Your task to perform on an android device: toggle notification dots Image 0: 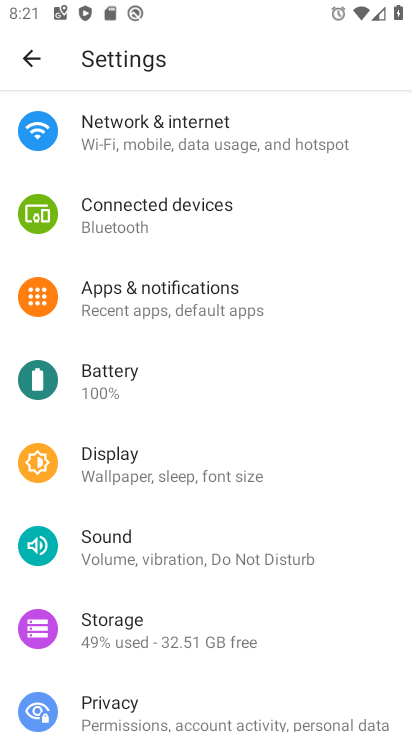
Step 0: drag from (259, 569) to (253, 428)
Your task to perform on an android device: toggle notification dots Image 1: 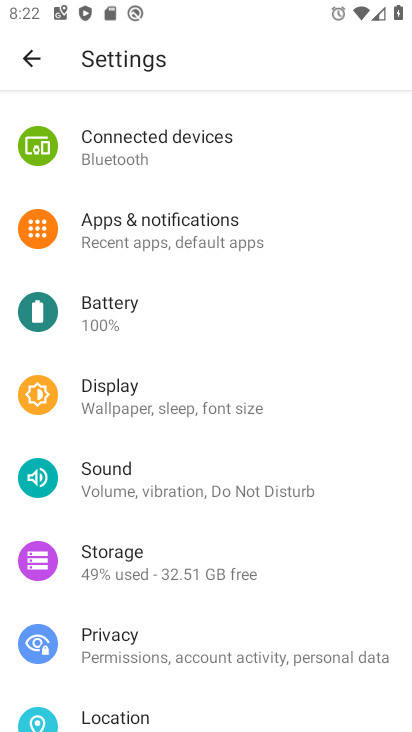
Step 1: click (224, 224)
Your task to perform on an android device: toggle notification dots Image 2: 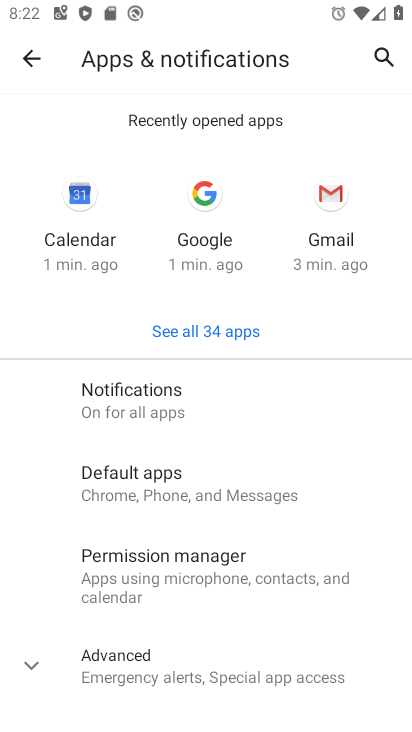
Step 2: drag from (235, 666) to (242, 487)
Your task to perform on an android device: toggle notification dots Image 3: 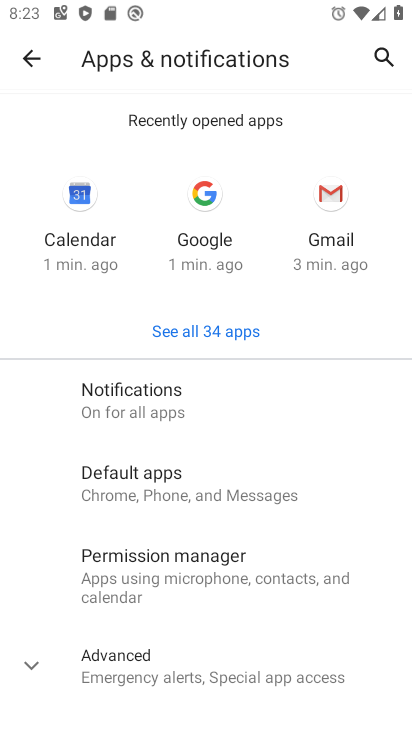
Step 3: drag from (222, 467) to (241, 149)
Your task to perform on an android device: toggle notification dots Image 4: 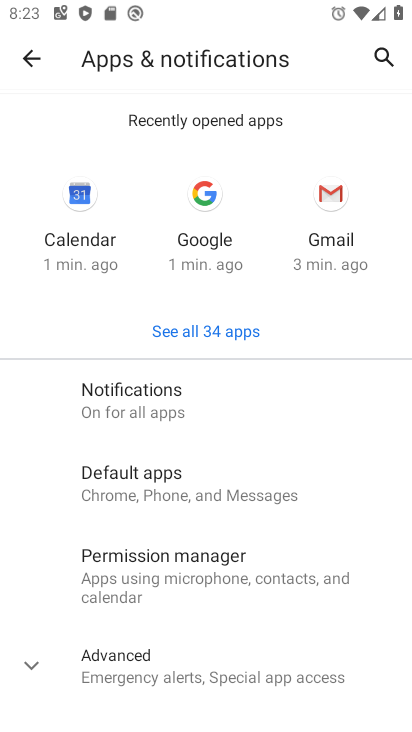
Step 4: drag from (216, 505) to (206, 123)
Your task to perform on an android device: toggle notification dots Image 5: 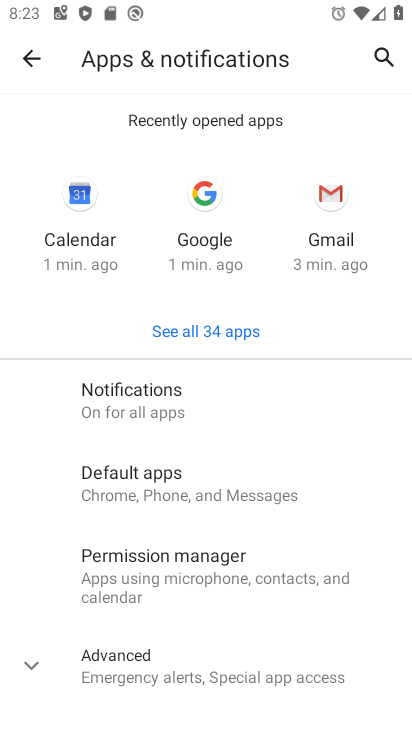
Step 5: click (205, 401)
Your task to perform on an android device: toggle notification dots Image 6: 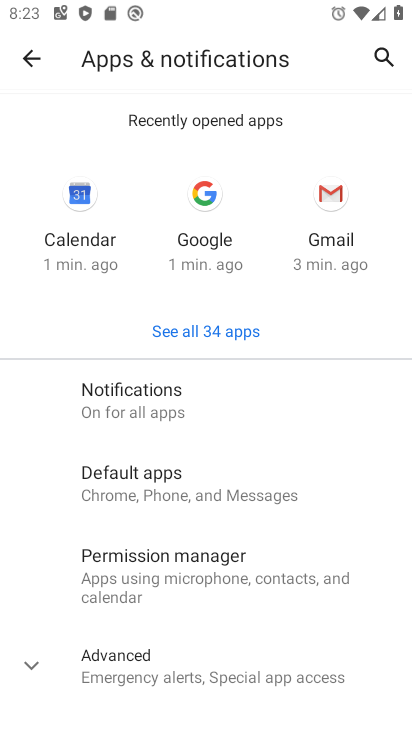
Step 6: click (205, 401)
Your task to perform on an android device: toggle notification dots Image 7: 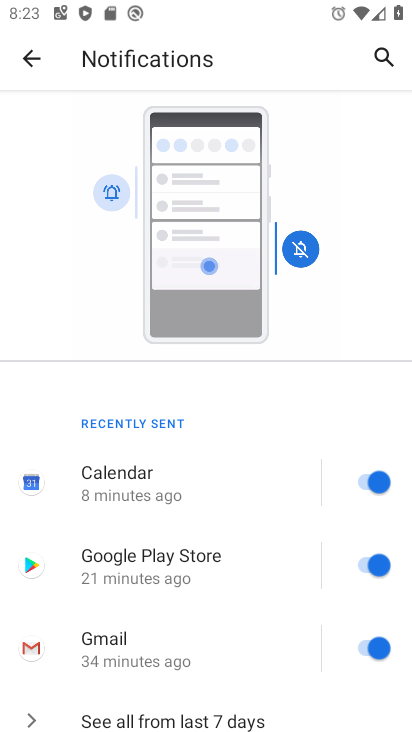
Step 7: drag from (281, 637) to (323, 299)
Your task to perform on an android device: toggle notification dots Image 8: 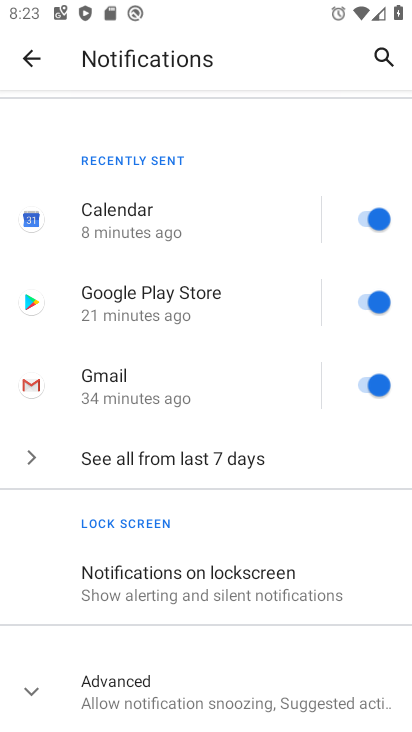
Step 8: drag from (290, 681) to (303, 347)
Your task to perform on an android device: toggle notification dots Image 9: 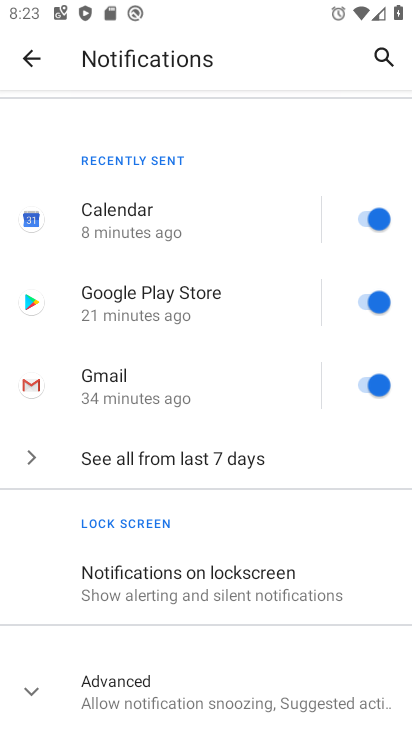
Step 9: click (179, 676)
Your task to perform on an android device: toggle notification dots Image 10: 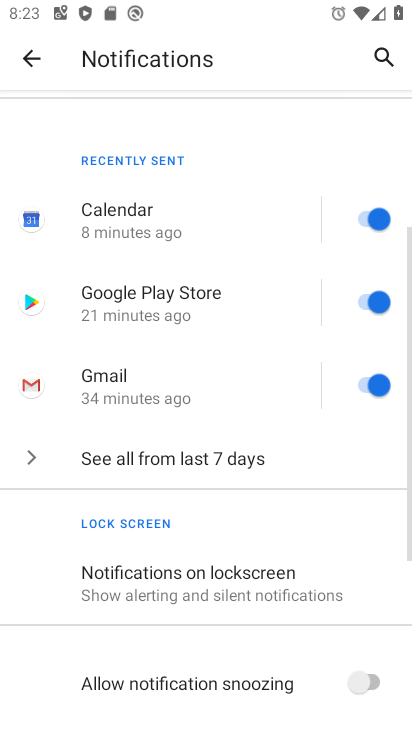
Step 10: drag from (281, 653) to (245, 60)
Your task to perform on an android device: toggle notification dots Image 11: 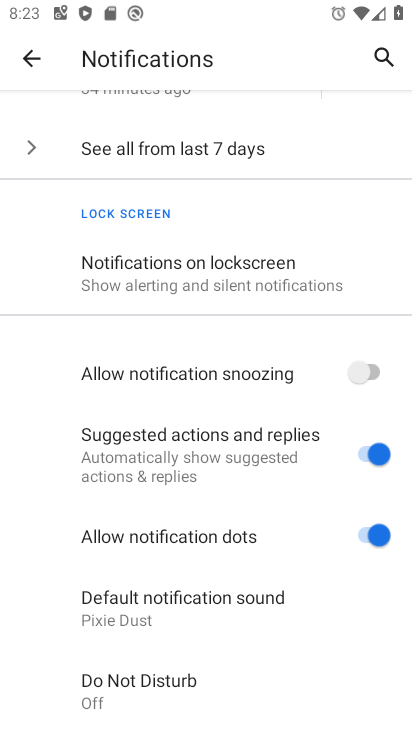
Step 11: click (366, 536)
Your task to perform on an android device: toggle notification dots Image 12: 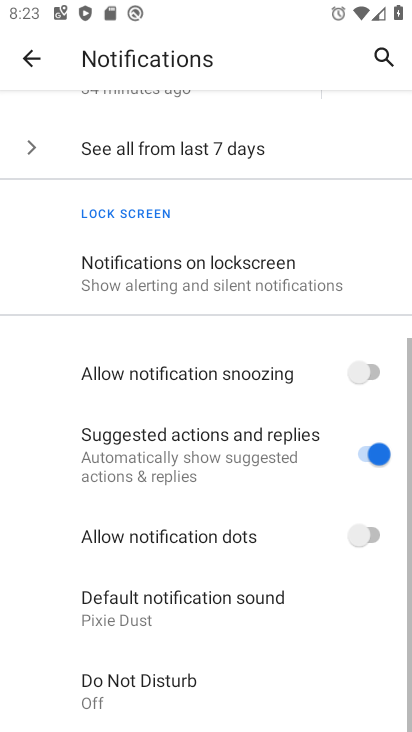
Step 12: task complete